Your task to perform on an android device: turn off notifications settings in the gmail app Image 0: 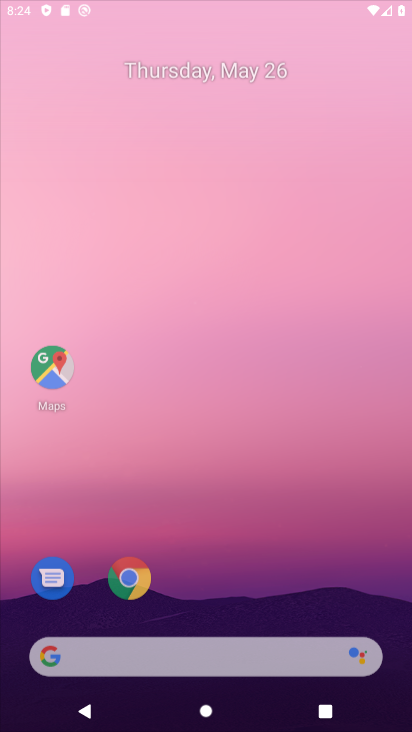
Step 0: click (298, 19)
Your task to perform on an android device: turn off notifications settings in the gmail app Image 1: 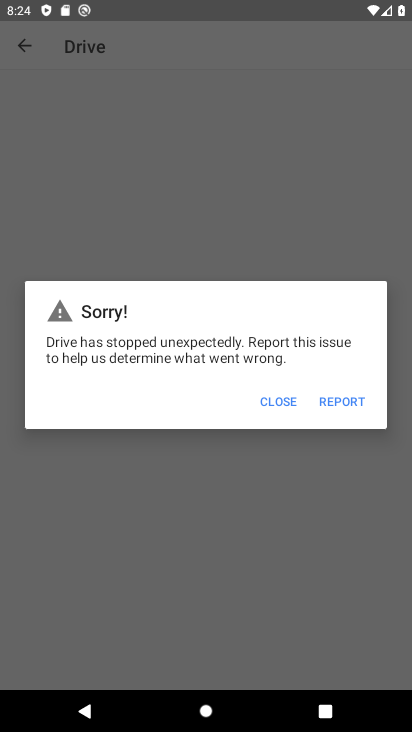
Step 1: press home button
Your task to perform on an android device: turn off notifications settings in the gmail app Image 2: 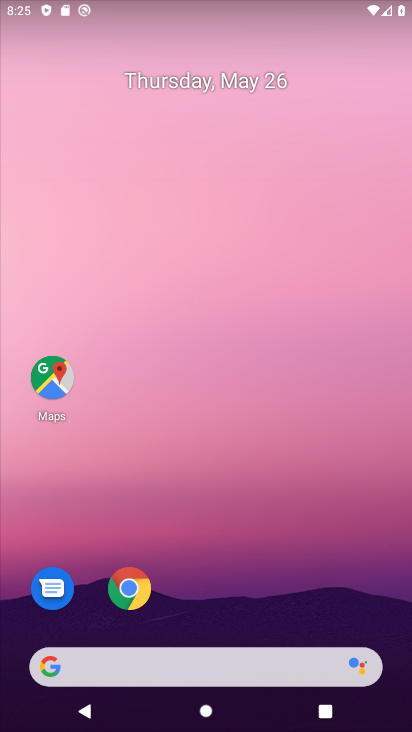
Step 2: drag from (366, 617) to (343, 92)
Your task to perform on an android device: turn off notifications settings in the gmail app Image 3: 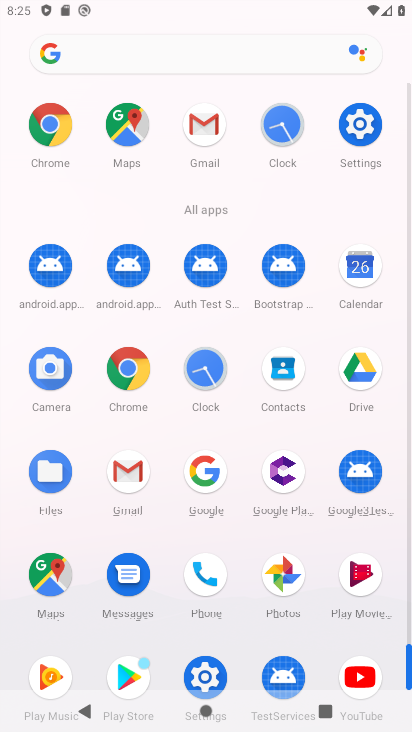
Step 3: click (124, 471)
Your task to perform on an android device: turn off notifications settings in the gmail app Image 4: 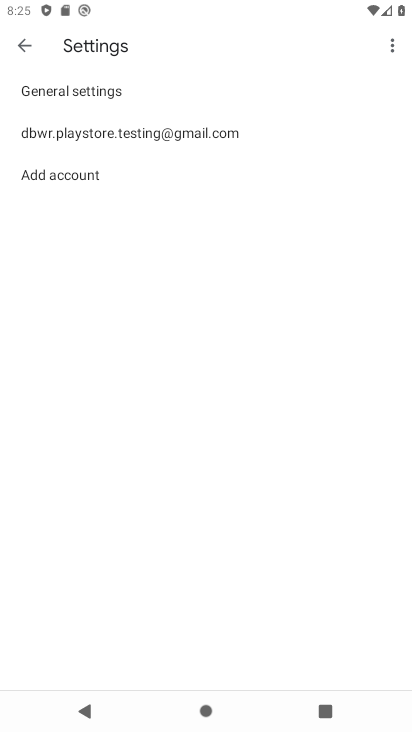
Step 4: click (132, 127)
Your task to perform on an android device: turn off notifications settings in the gmail app Image 5: 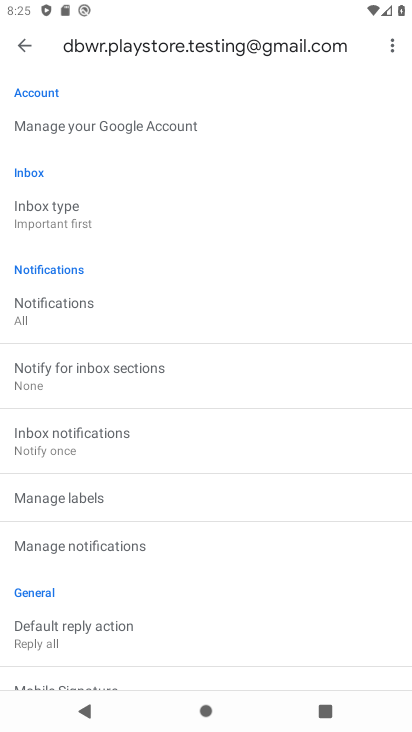
Step 5: click (91, 556)
Your task to perform on an android device: turn off notifications settings in the gmail app Image 6: 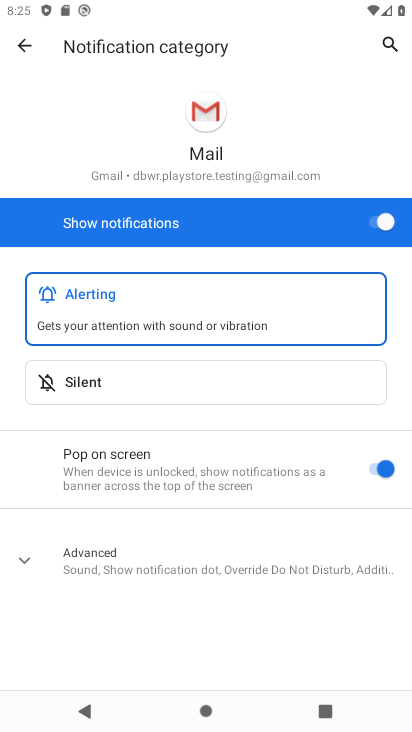
Step 6: click (366, 224)
Your task to perform on an android device: turn off notifications settings in the gmail app Image 7: 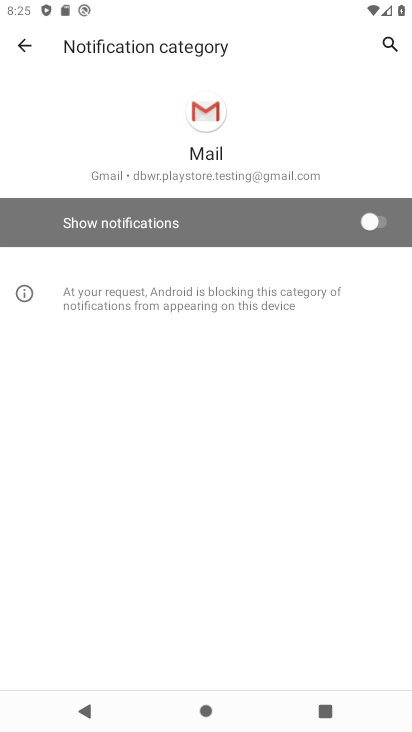
Step 7: task complete